Your task to perform on an android device: Search for pizza restaurants on Maps Image 0: 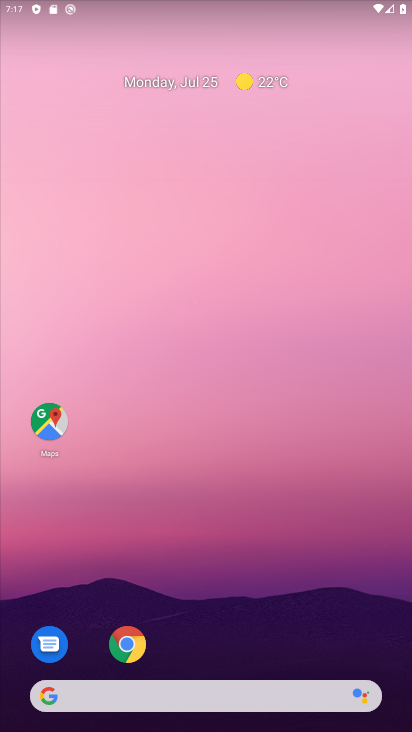
Step 0: press home button
Your task to perform on an android device: Search for pizza restaurants on Maps Image 1: 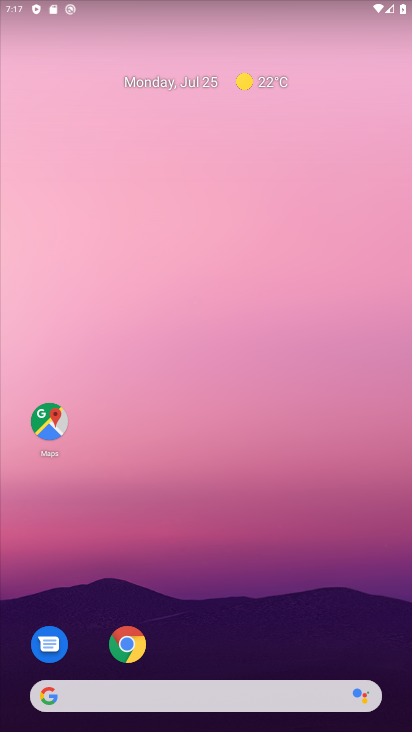
Step 1: click (49, 417)
Your task to perform on an android device: Search for pizza restaurants on Maps Image 2: 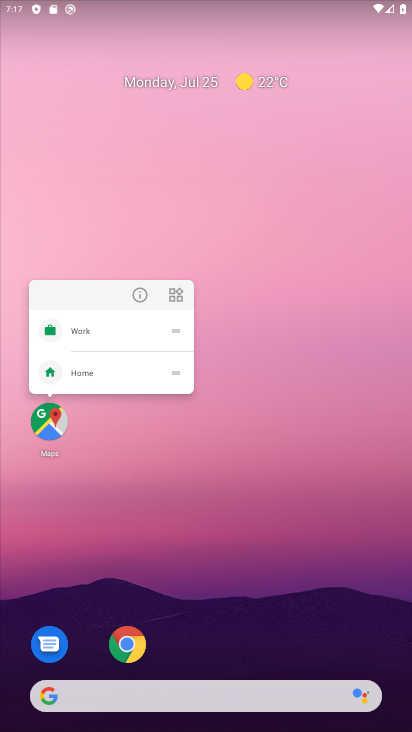
Step 2: click (49, 417)
Your task to perform on an android device: Search for pizza restaurants on Maps Image 3: 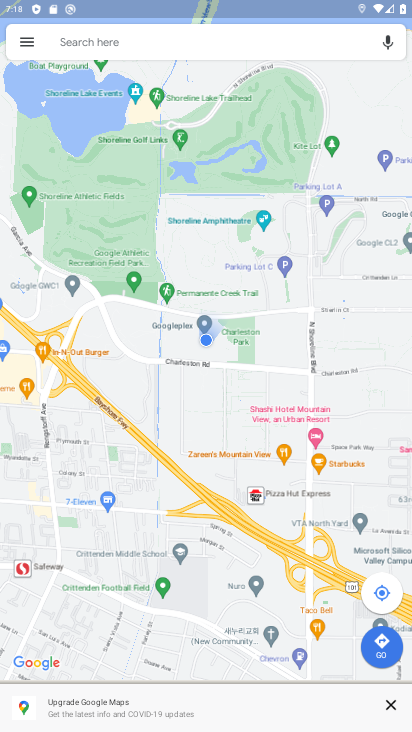
Step 3: click (82, 38)
Your task to perform on an android device: Search for pizza restaurants on Maps Image 4: 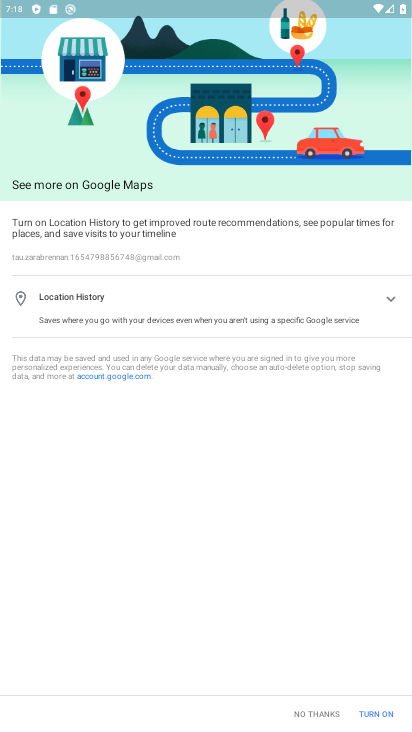
Step 4: click (374, 715)
Your task to perform on an android device: Search for pizza restaurants on Maps Image 5: 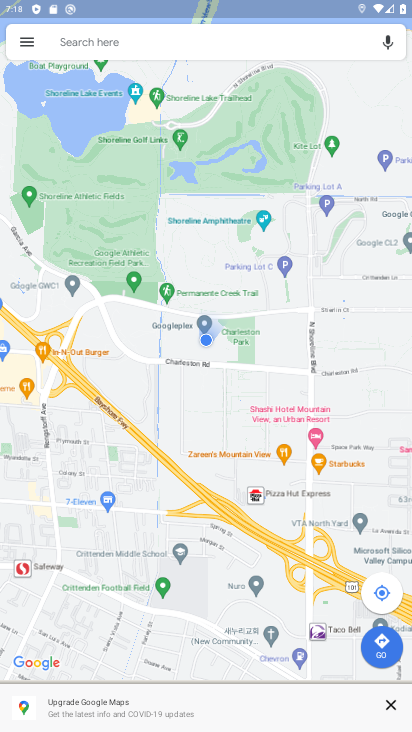
Step 5: click (89, 37)
Your task to perform on an android device: Search for pizza restaurants on Maps Image 6: 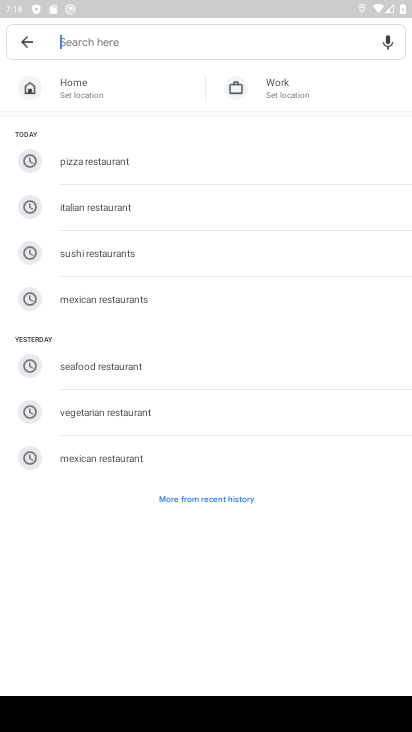
Step 6: click (84, 163)
Your task to perform on an android device: Search for pizza restaurants on Maps Image 7: 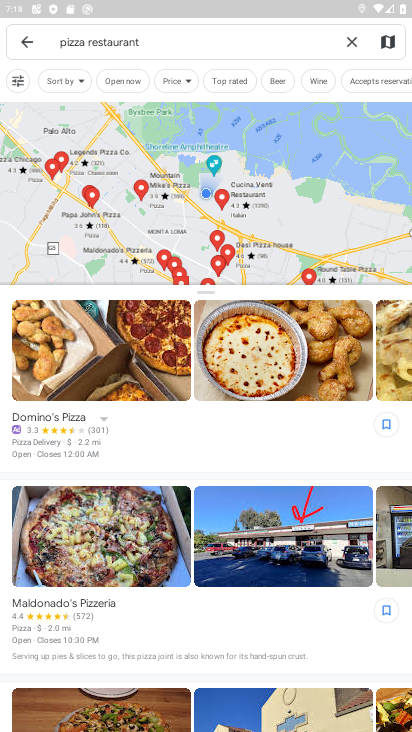
Step 7: task complete